Your task to perform on an android device: add a contact in the contacts app Image 0: 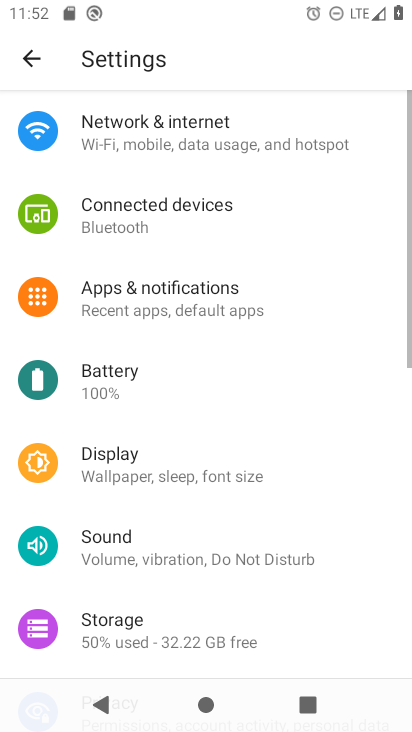
Step 0: press home button
Your task to perform on an android device: add a contact in the contacts app Image 1: 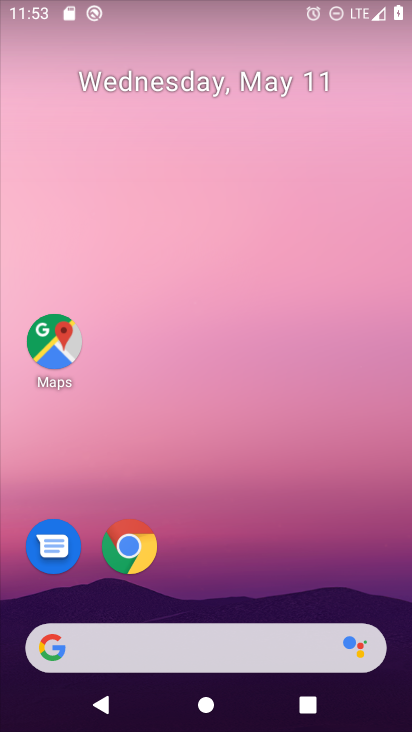
Step 1: drag from (403, 637) to (310, 54)
Your task to perform on an android device: add a contact in the contacts app Image 2: 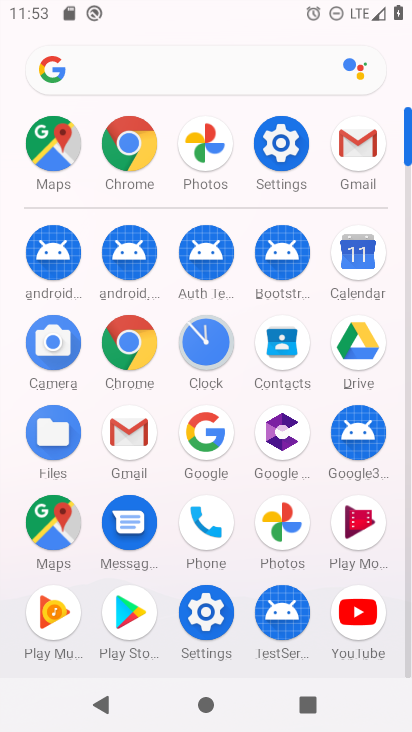
Step 2: click (263, 337)
Your task to perform on an android device: add a contact in the contacts app Image 3: 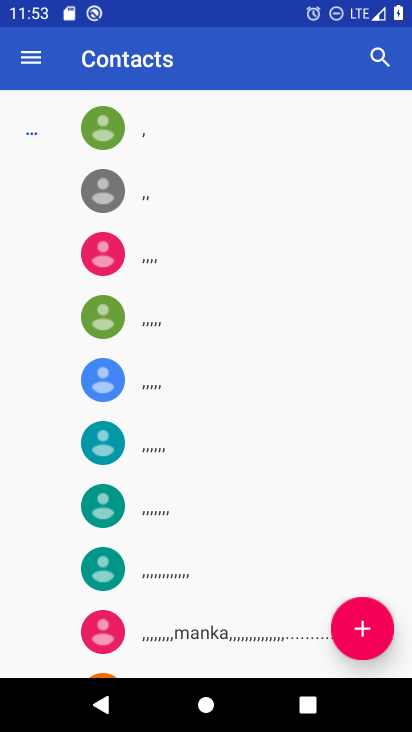
Step 3: click (367, 629)
Your task to perform on an android device: add a contact in the contacts app Image 4: 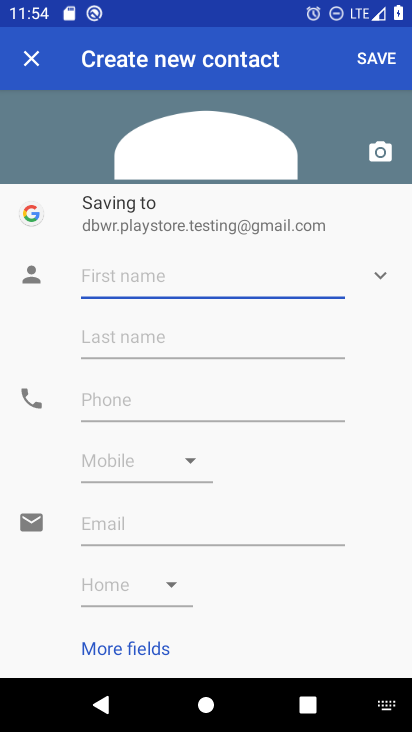
Step 4: type "nitesh"
Your task to perform on an android device: add a contact in the contacts app Image 5: 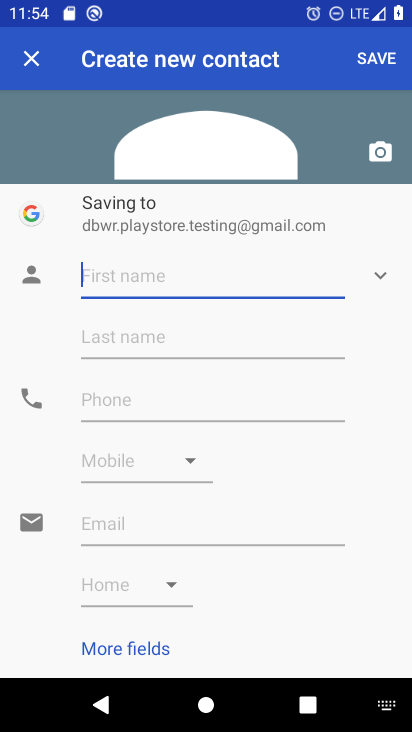
Step 5: click (380, 56)
Your task to perform on an android device: add a contact in the contacts app Image 6: 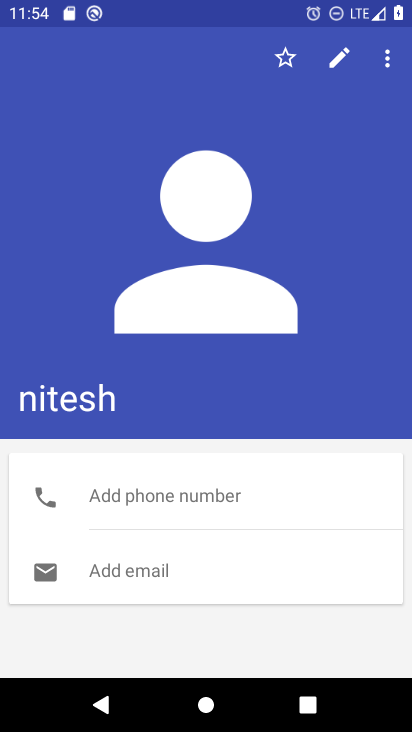
Step 6: task complete